Your task to perform on an android device: Show me productivity apps on the Play Store Image 0: 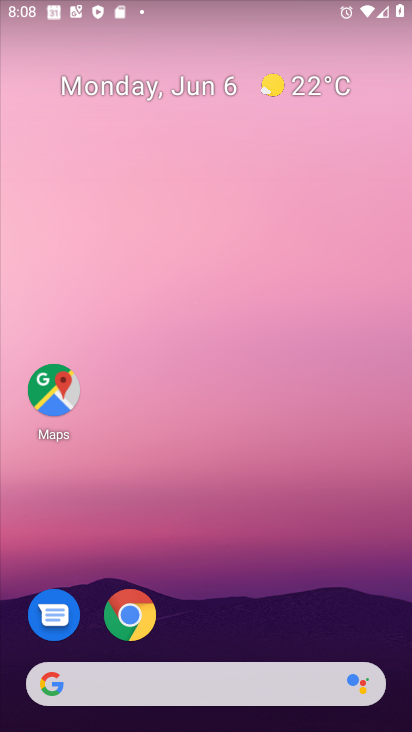
Step 0: press home button
Your task to perform on an android device: Show me productivity apps on the Play Store Image 1: 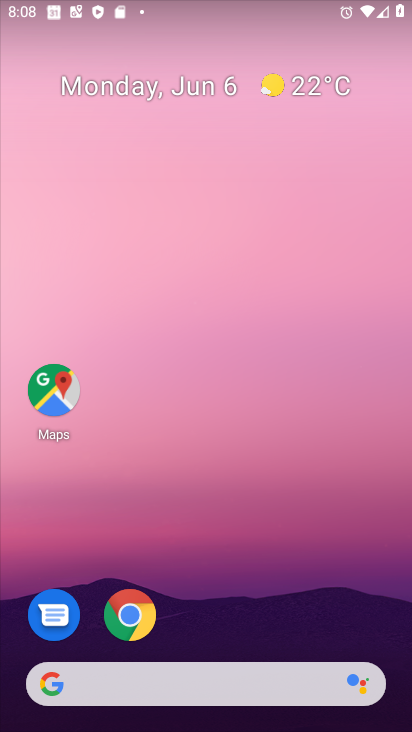
Step 1: drag from (390, 684) to (260, 138)
Your task to perform on an android device: Show me productivity apps on the Play Store Image 2: 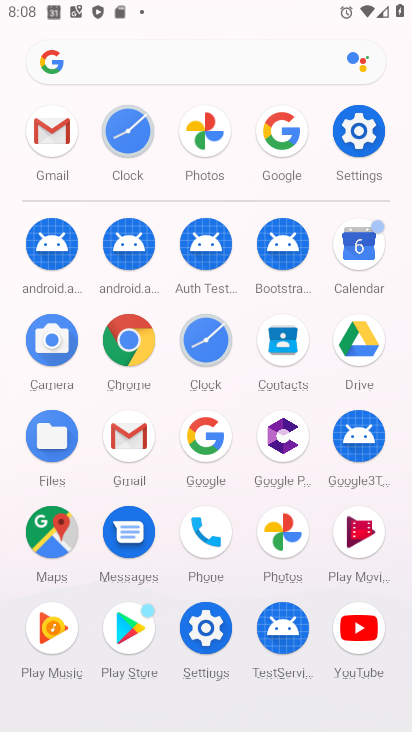
Step 2: click (124, 621)
Your task to perform on an android device: Show me productivity apps on the Play Store Image 3: 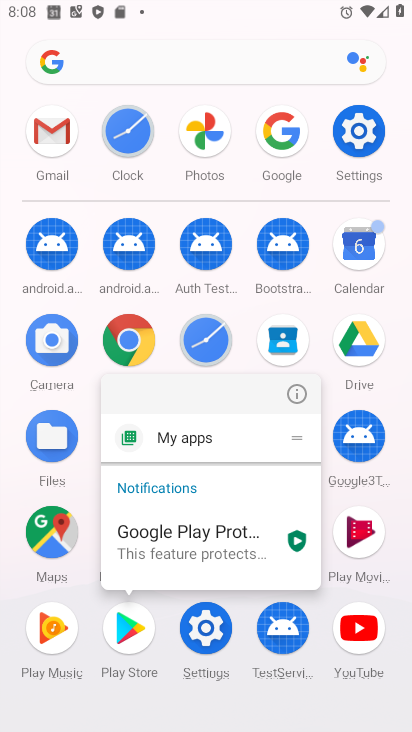
Step 3: click (126, 626)
Your task to perform on an android device: Show me productivity apps on the Play Store Image 4: 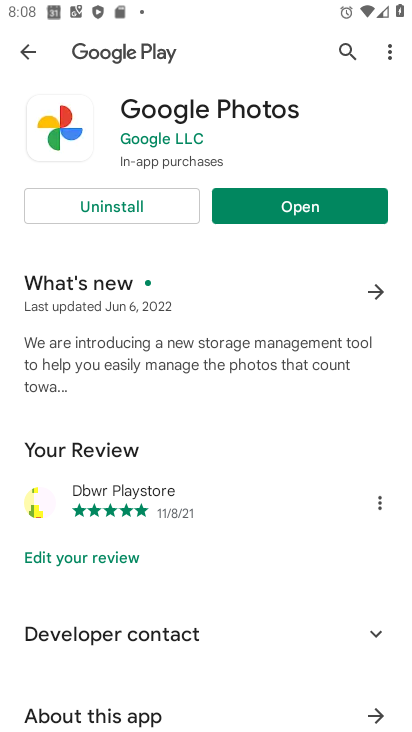
Step 4: click (26, 46)
Your task to perform on an android device: Show me productivity apps on the Play Store Image 5: 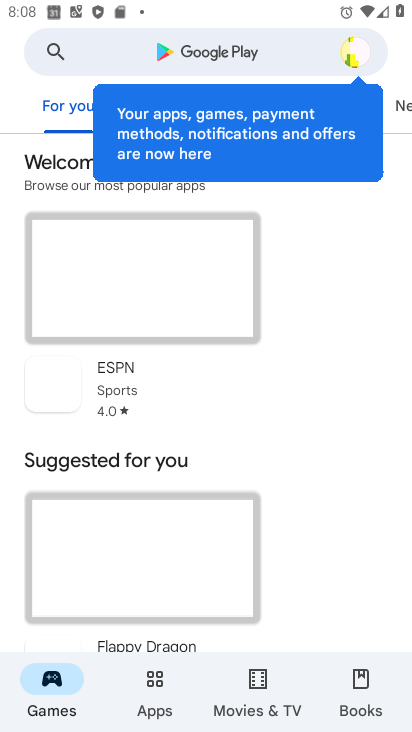
Step 5: click (179, 57)
Your task to perform on an android device: Show me productivity apps on the Play Store Image 6: 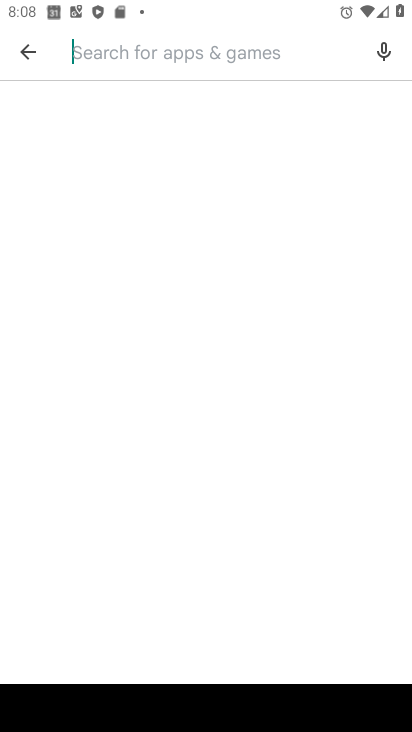
Step 6: type "productivity apps"
Your task to perform on an android device: Show me productivity apps on the Play Store Image 7: 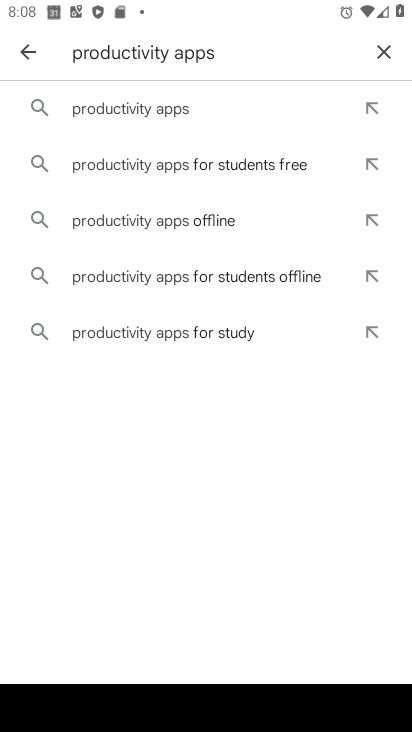
Step 7: click (135, 95)
Your task to perform on an android device: Show me productivity apps on the Play Store Image 8: 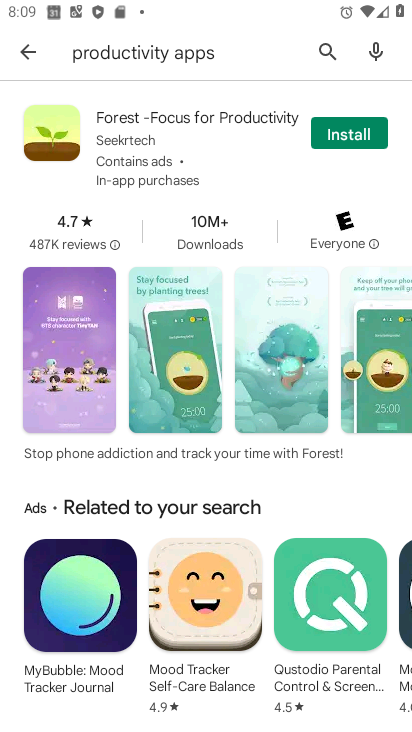
Step 8: task complete